Your task to perform on an android device: find which apps use the phone's location Image 0: 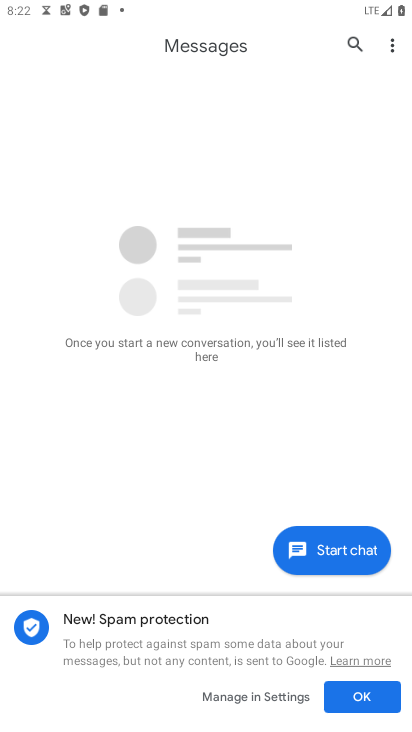
Step 0: press back button
Your task to perform on an android device: find which apps use the phone's location Image 1: 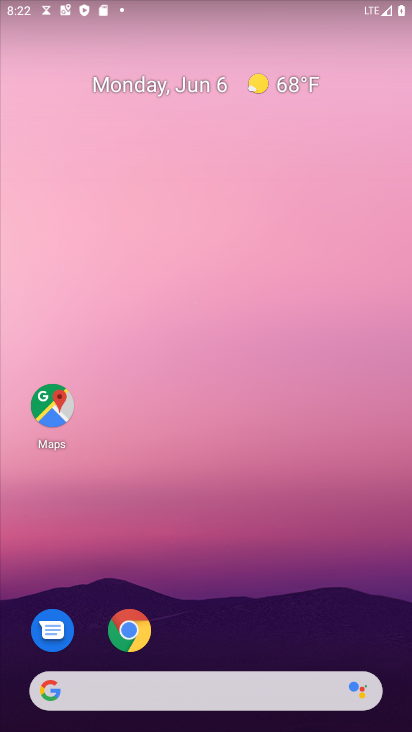
Step 1: drag from (324, 600) to (238, 70)
Your task to perform on an android device: find which apps use the phone's location Image 2: 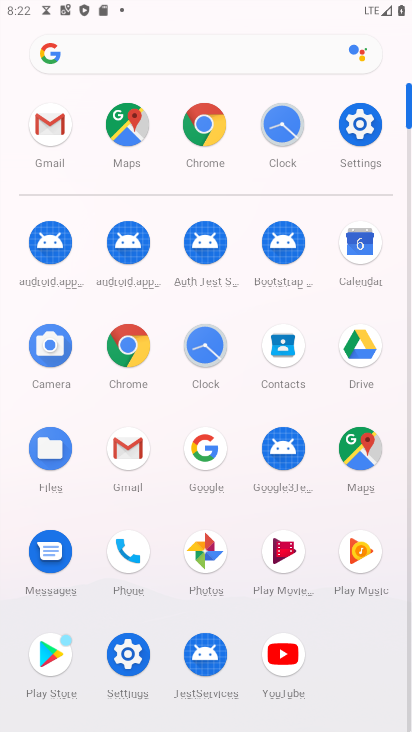
Step 2: click (360, 123)
Your task to perform on an android device: find which apps use the phone's location Image 3: 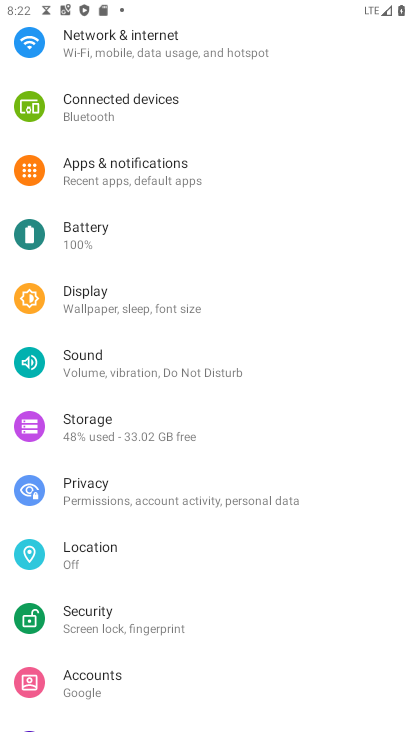
Step 3: click (72, 557)
Your task to perform on an android device: find which apps use the phone's location Image 4: 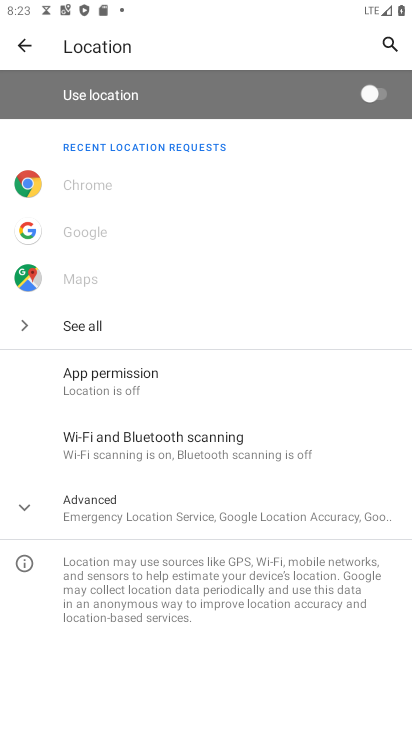
Step 4: click (90, 393)
Your task to perform on an android device: find which apps use the phone's location Image 5: 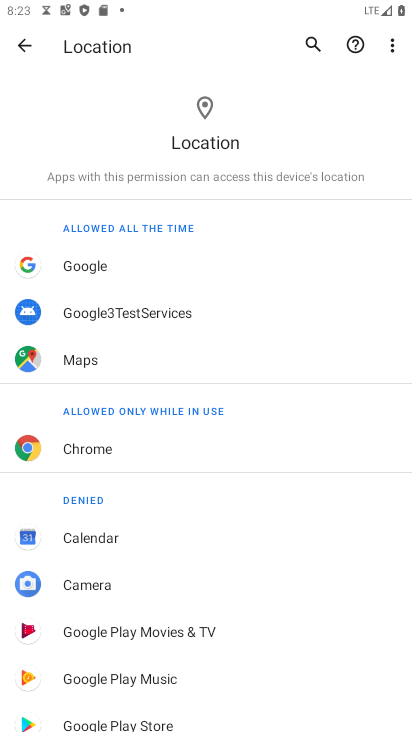
Step 5: click (86, 367)
Your task to perform on an android device: find which apps use the phone's location Image 6: 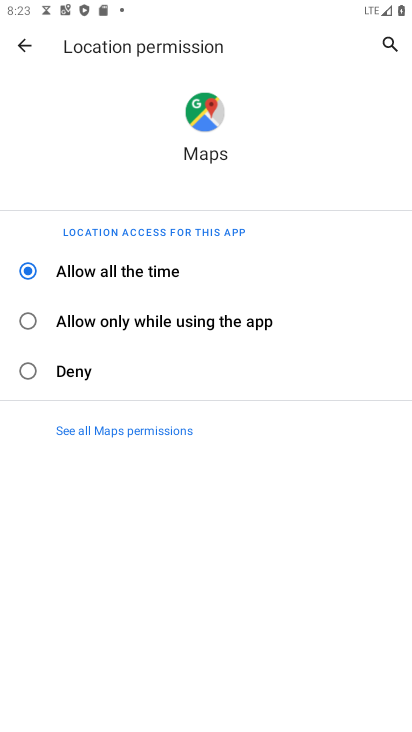
Step 6: task complete